Your task to perform on an android device: Search for "beats solo 3" on newegg.com, select the first entry, add it to the cart, then select checkout. Image 0: 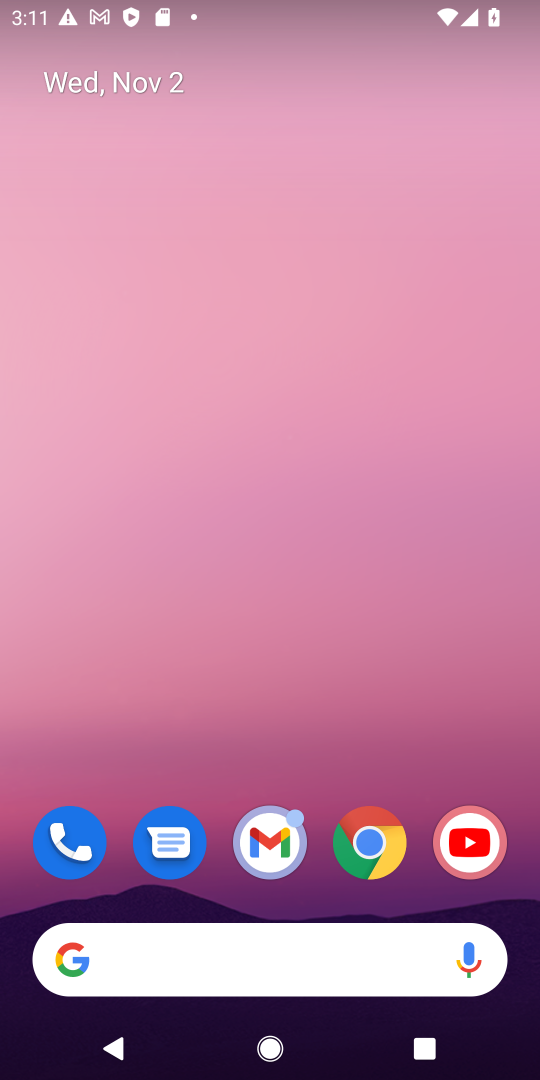
Step 0: click (363, 861)
Your task to perform on an android device: Search for "beats solo 3" on newegg.com, select the first entry, add it to the cart, then select checkout. Image 1: 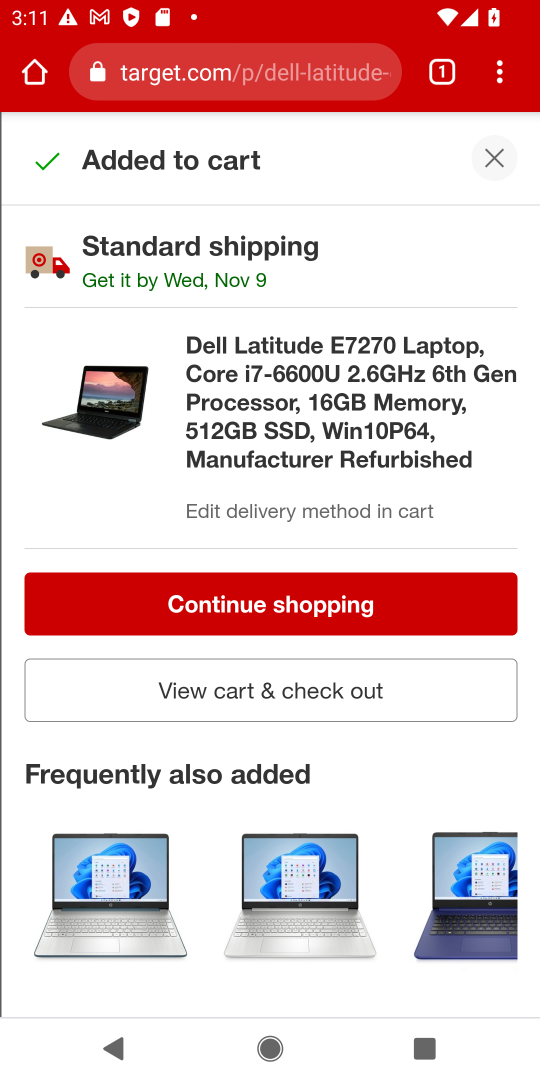
Step 1: click (296, 95)
Your task to perform on an android device: Search for "beats solo 3" on newegg.com, select the first entry, add it to the cart, then select checkout. Image 2: 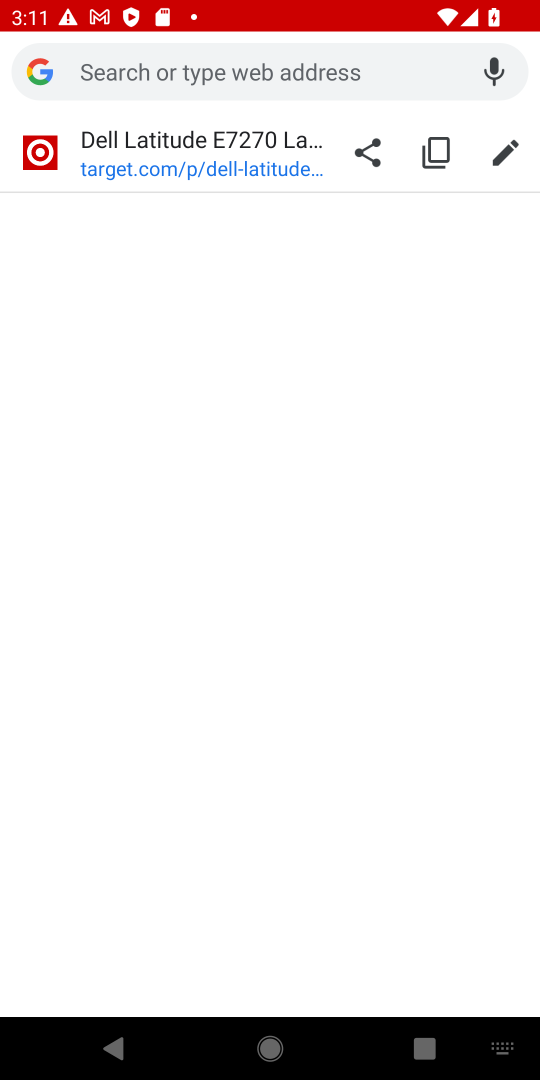
Step 2: type "newegg.com"
Your task to perform on an android device: Search for "beats solo 3" on newegg.com, select the first entry, add it to the cart, then select checkout. Image 3: 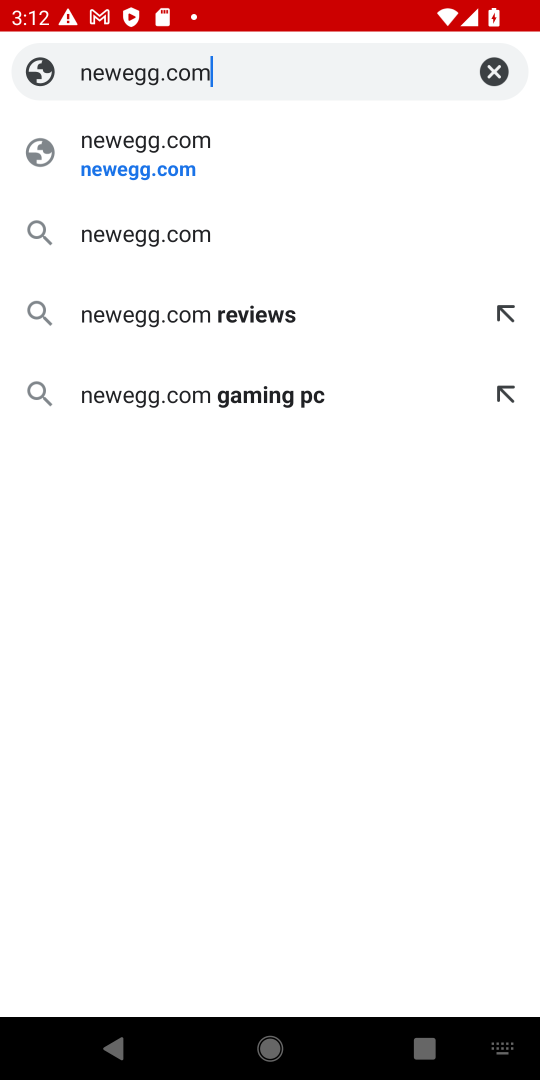
Step 3: click (144, 159)
Your task to perform on an android device: Search for "beats solo 3" on newegg.com, select the first entry, add it to the cart, then select checkout. Image 4: 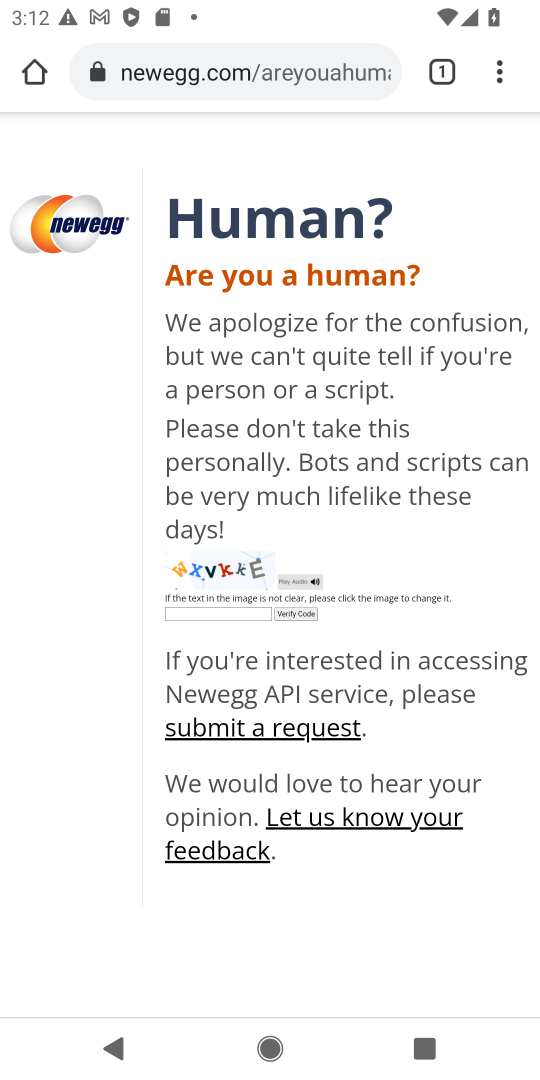
Step 4: click (218, 610)
Your task to perform on an android device: Search for "beats solo 3" on newegg.com, select the first entry, add it to the cart, then select checkout. Image 5: 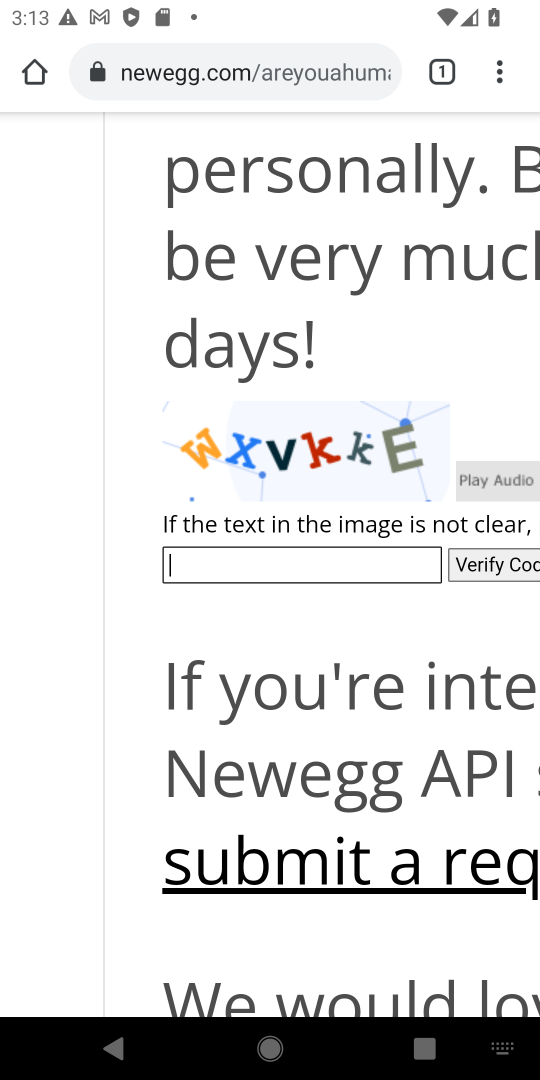
Step 5: type "WXVkkE"
Your task to perform on an android device: Search for "beats solo 3" on newegg.com, select the first entry, add it to the cart, then select checkout. Image 6: 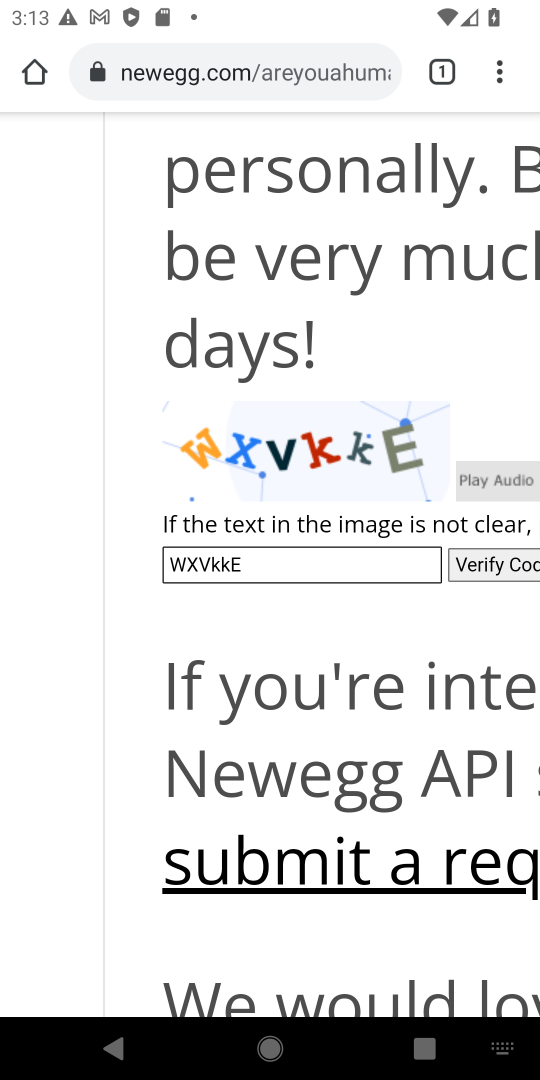
Step 6: click (497, 563)
Your task to perform on an android device: Search for "beats solo 3" on newegg.com, select the first entry, add it to the cart, then select checkout. Image 7: 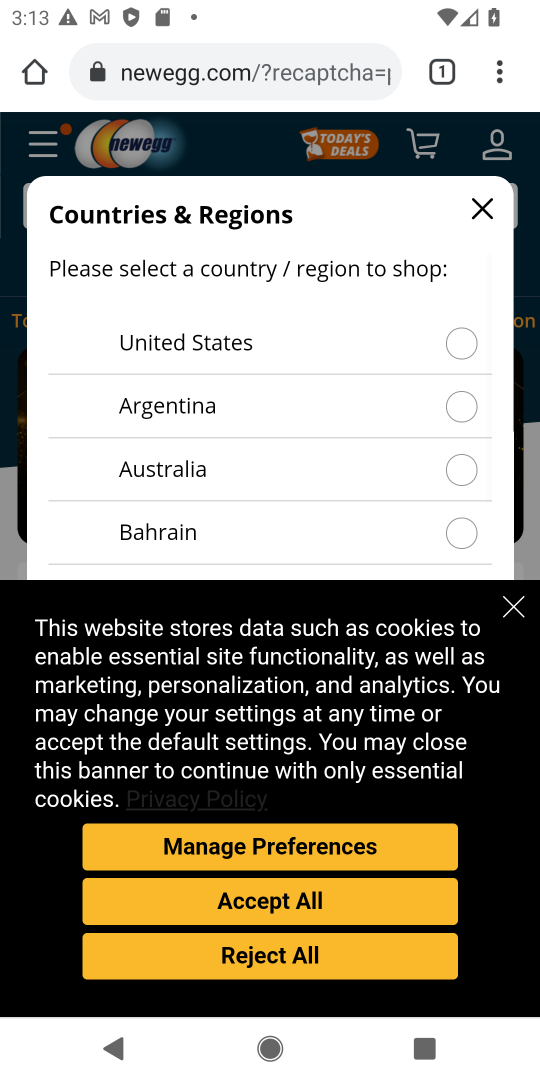
Step 7: click (206, 204)
Your task to perform on an android device: Search for "beats solo 3" on newegg.com, select the first entry, add it to the cart, then select checkout. Image 8: 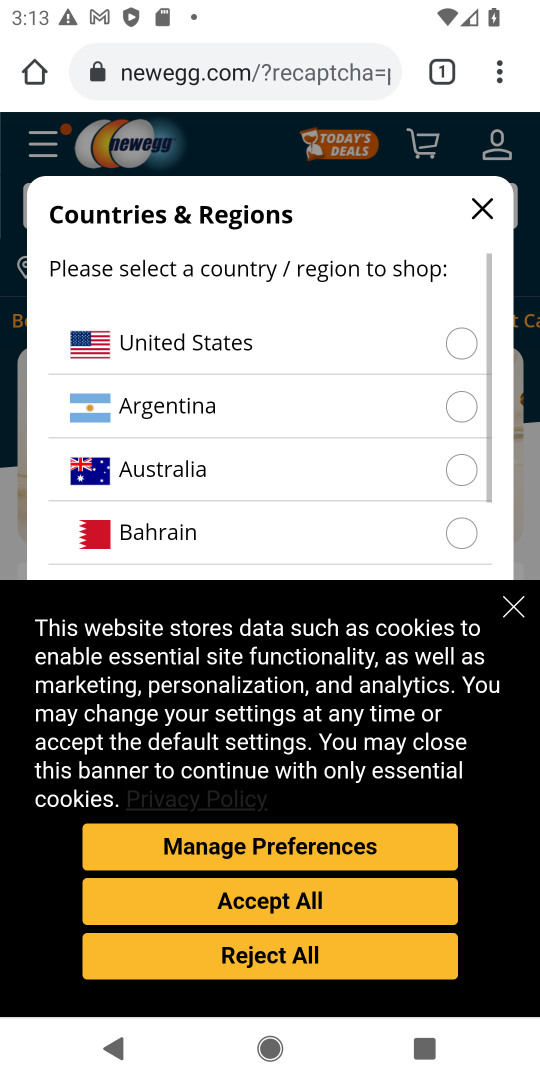
Step 8: click (482, 211)
Your task to perform on an android device: Search for "beats solo 3" on newegg.com, select the first entry, add it to the cart, then select checkout. Image 9: 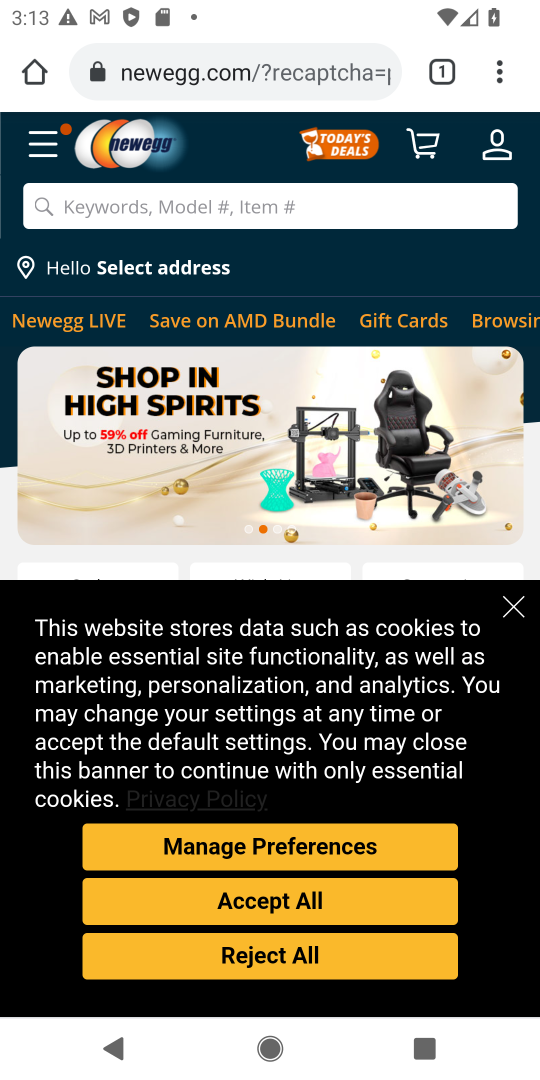
Step 9: click (215, 195)
Your task to perform on an android device: Search for "beats solo 3" on newegg.com, select the first entry, add it to the cart, then select checkout. Image 10: 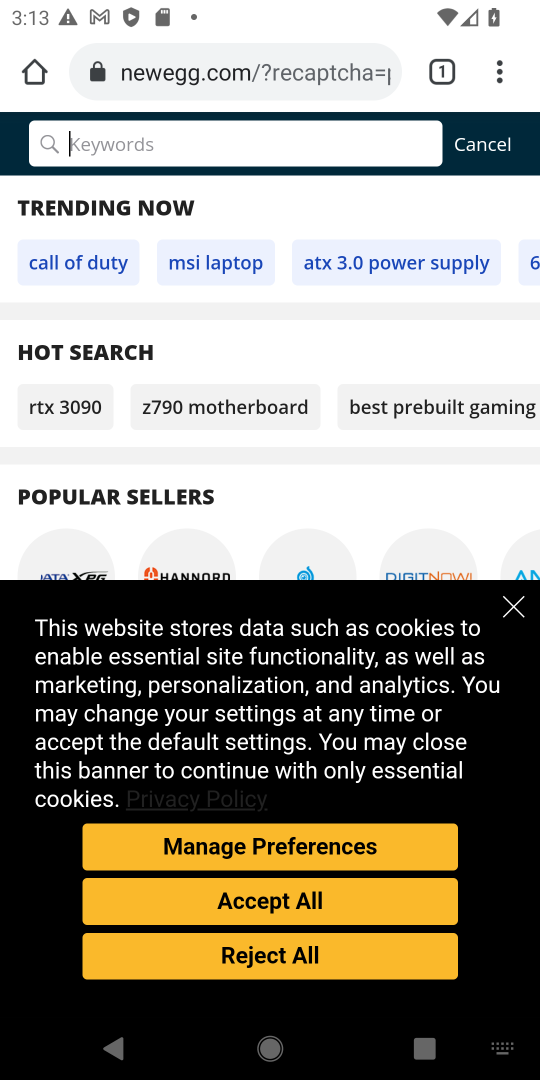
Step 10: click (516, 616)
Your task to perform on an android device: Search for "beats solo 3" on newegg.com, select the first entry, add it to the cart, then select checkout. Image 11: 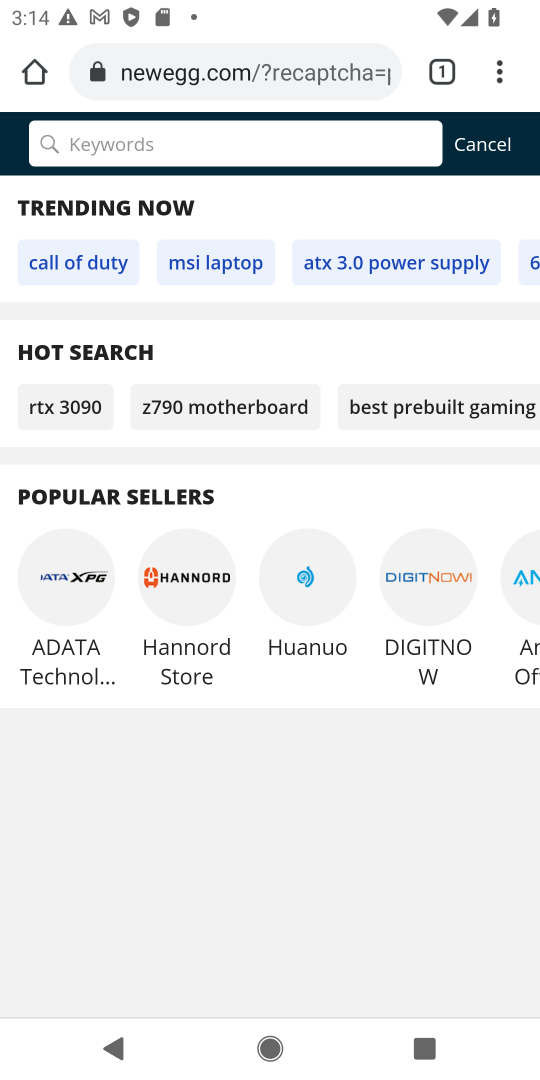
Step 11: click (273, 150)
Your task to perform on an android device: Search for "beats solo 3" on newegg.com, select the first entry, add it to the cart, then select checkout. Image 12: 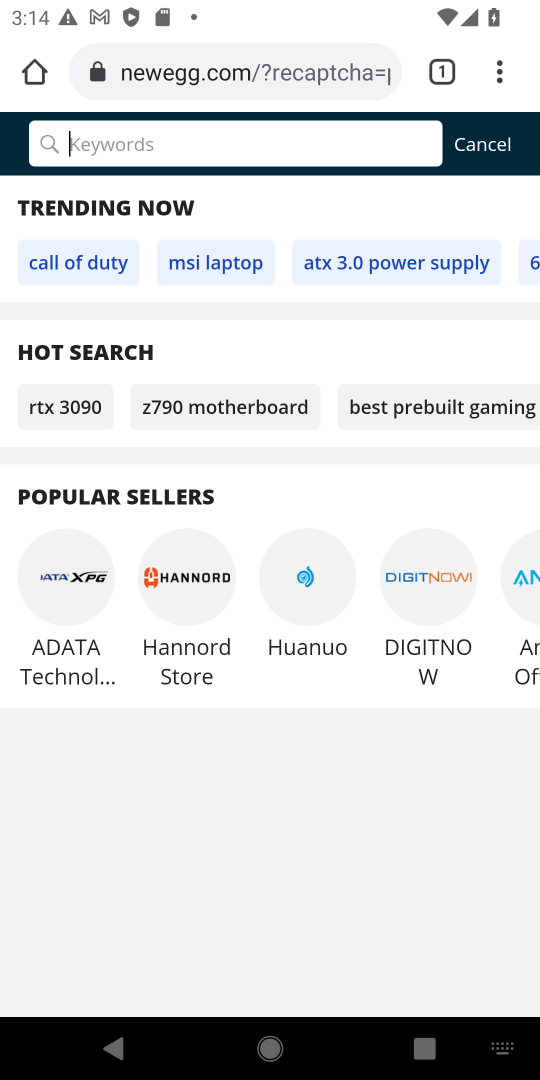
Step 12: type "beats solo 3"
Your task to perform on an android device: Search for "beats solo 3" on newegg.com, select the first entry, add it to the cart, then select checkout. Image 13: 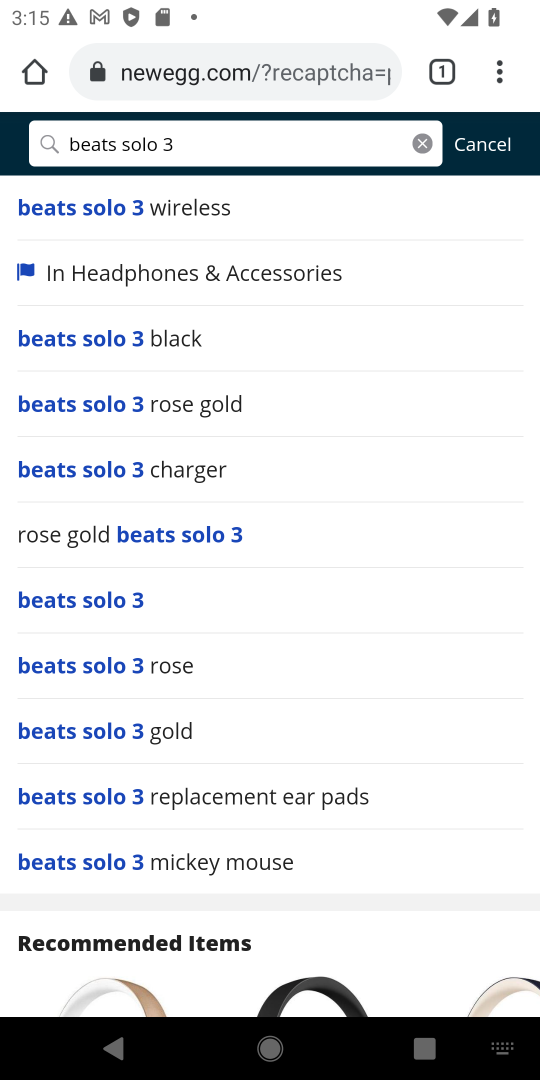
Step 13: press enter
Your task to perform on an android device: Search for "beats solo 3" on newegg.com, select the first entry, add it to the cart, then select checkout. Image 14: 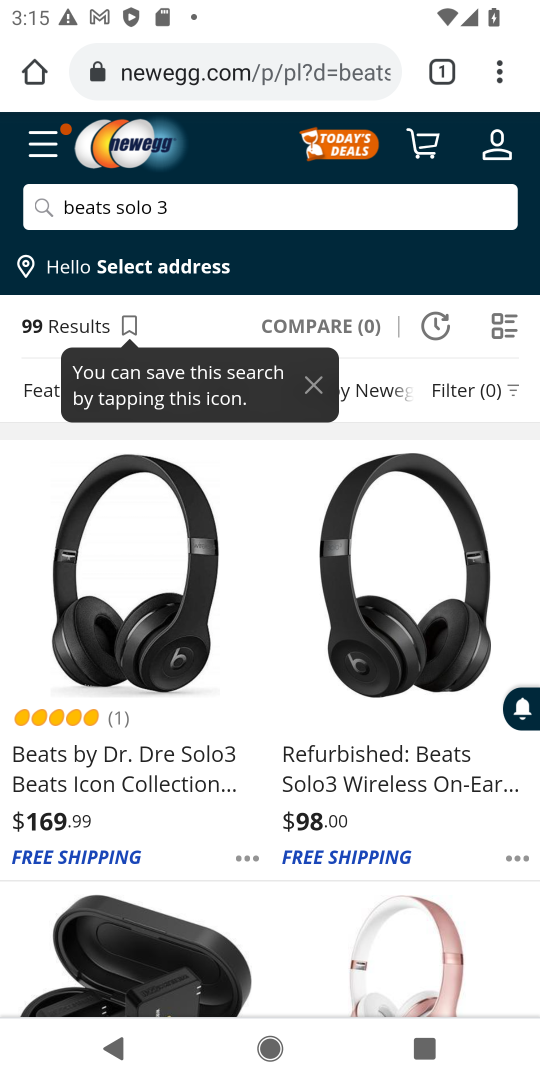
Step 14: click (133, 620)
Your task to perform on an android device: Search for "beats solo 3" on newegg.com, select the first entry, add it to the cart, then select checkout. Image 15: 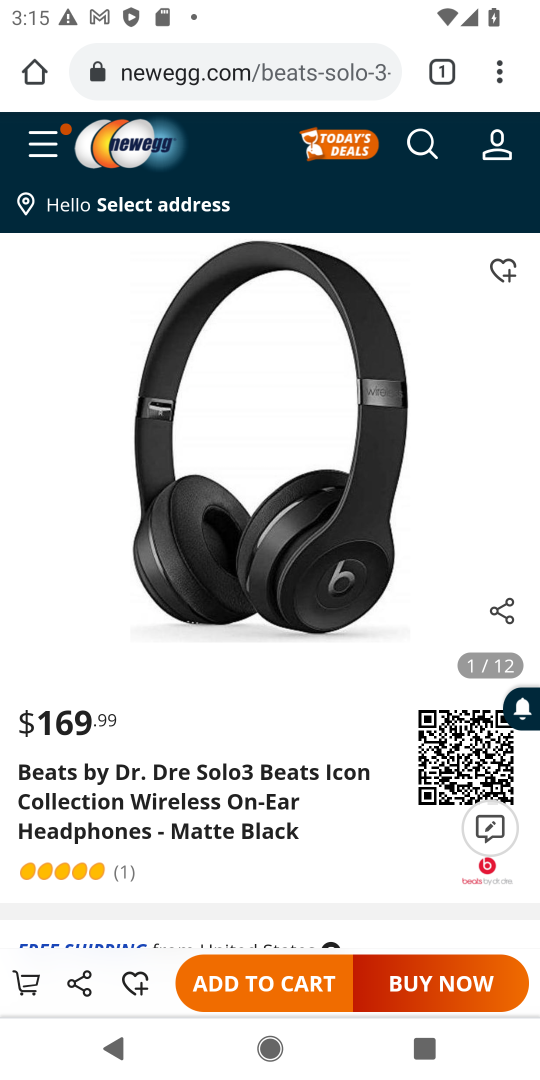
Step 15: click (251, 965)
Your task to perform on an android device: Search for "beats solo 3" on newegg.com, select the first entry, add it to the cart, then select checkout. Image 16: 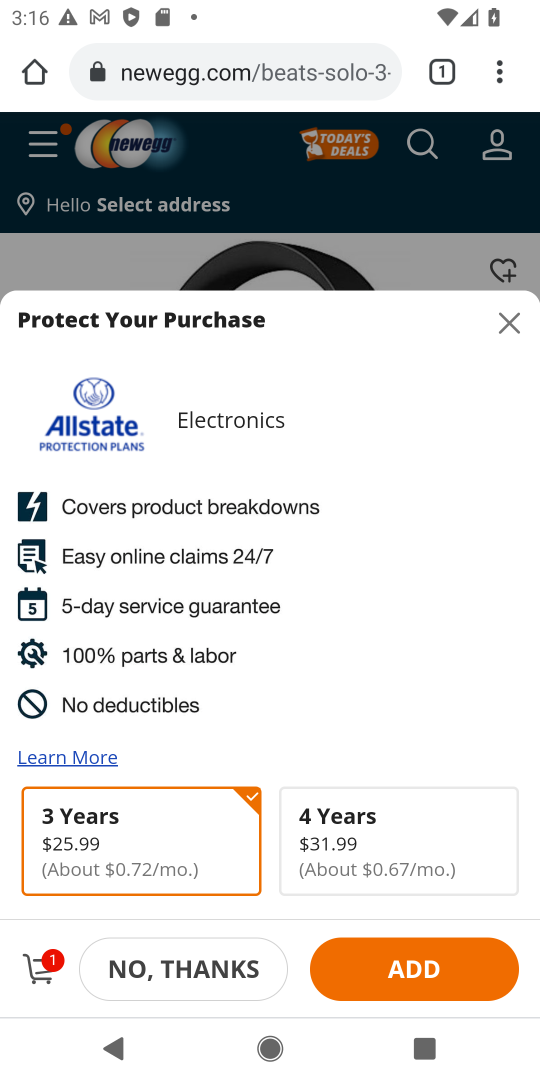
Step 16: click (50, 964)
Your task to perform on an android device: Search for "beats solo 3" on newegg.com, select the first entry, add it to the cart, then select checkout. Image 17: 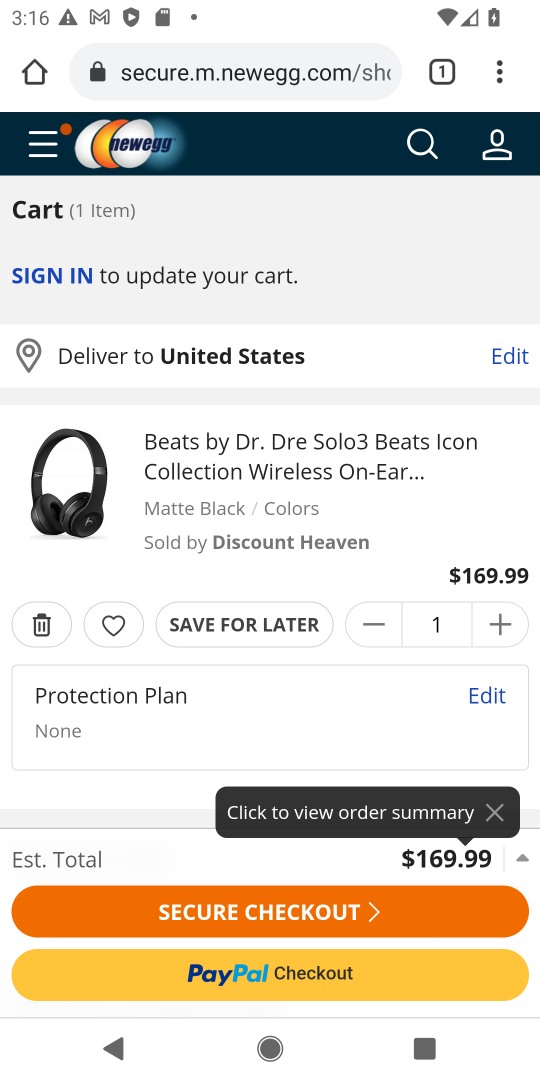
Step 17: click (193, 909)
Your task to perform on an android device: Search for "beats solo 3" on newegg.com, select the first entry, add it to the cart, then select checkout. Image 18: 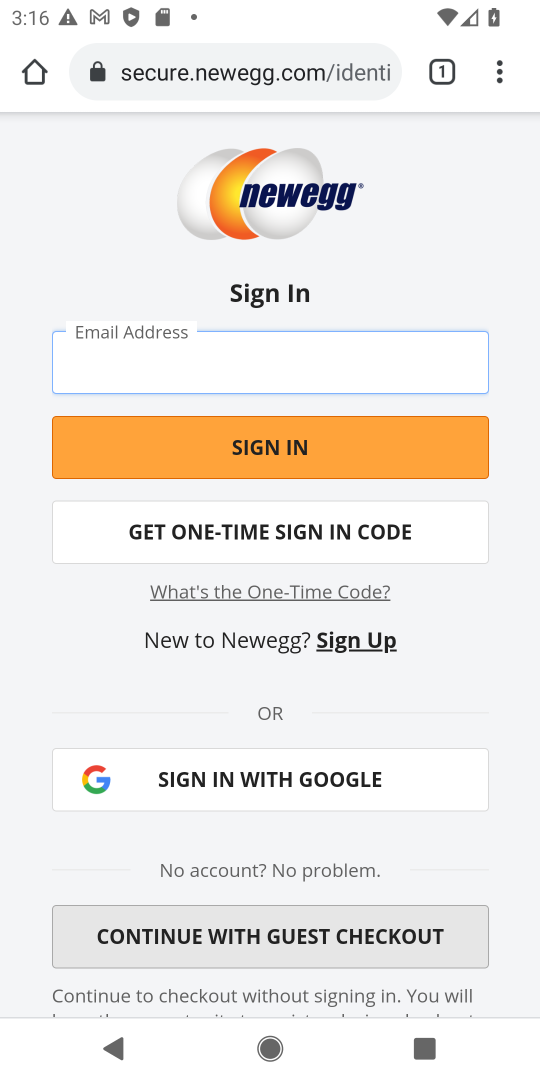
Step 18: task complete